Your task to perform on an android device: What's the weather? Image 0: 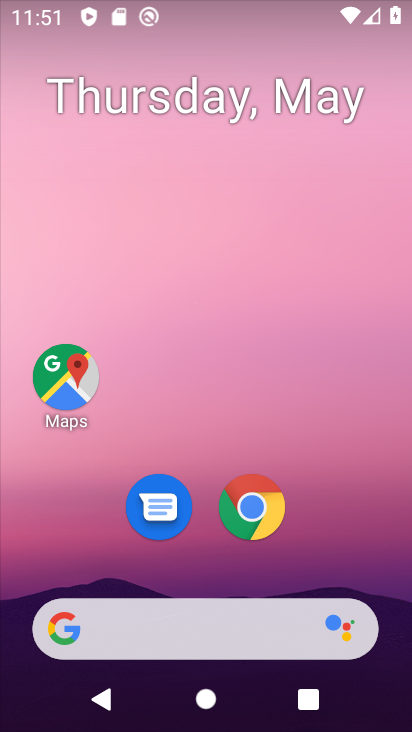
Step 0: drag from (185, 604) to (250, 72)
Your task to perform on an android device: What's the weather? Image 1: 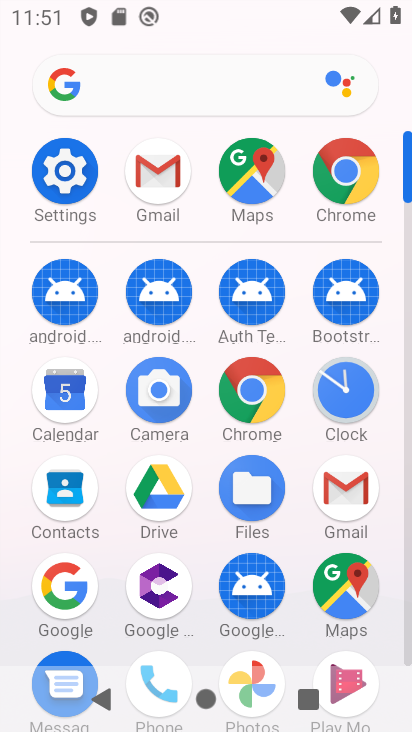
Step 1: drag from (192, 423) to (199, 95)
Your task to perform on an android device: What's the weather? Image 2: 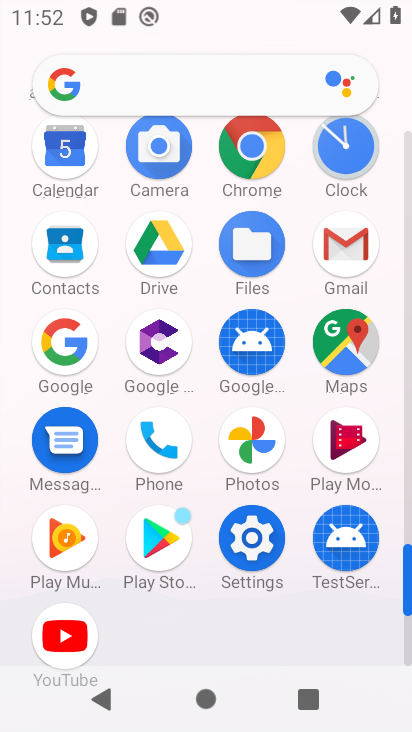
Step 2: drag from (222, 263) to (229, 527)
Your task to perform on an android device: What's the weather? Image 3: 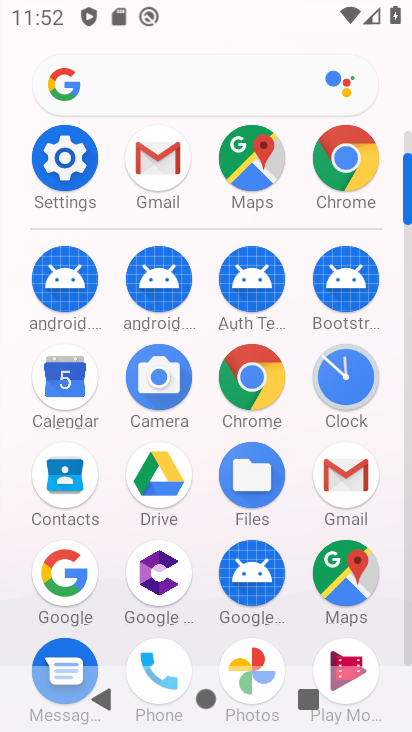
Step 3: click (65, 579)
Your task to perform on an android device: What's the weather? Image 4: 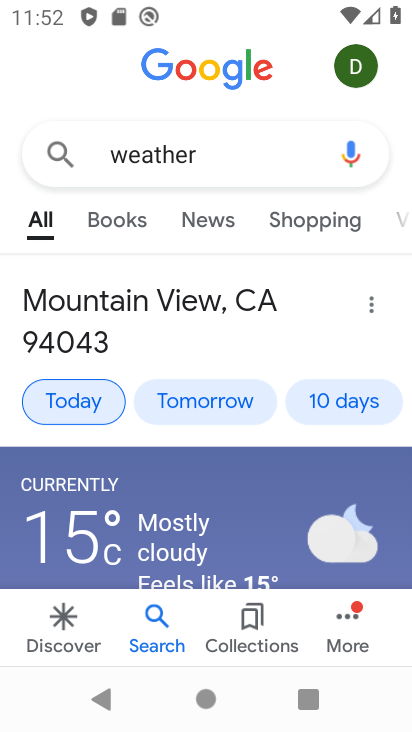
Step 4: task complete